Your task to perform on an android device: Open Wikipedia Image 0: 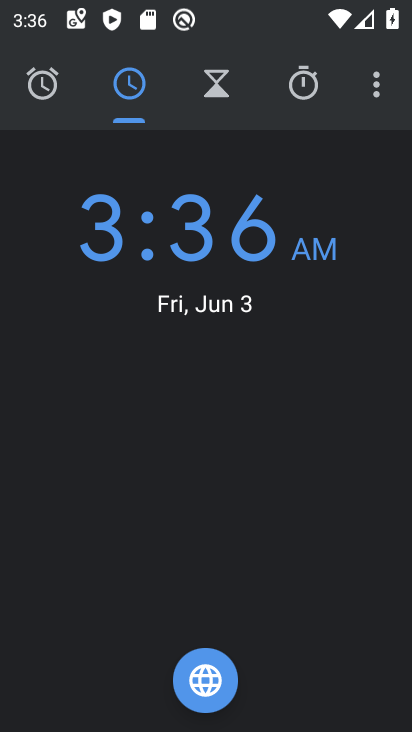
Step 0: press home button
Your task to perform on an android device: Open Wikipedia Image 1: 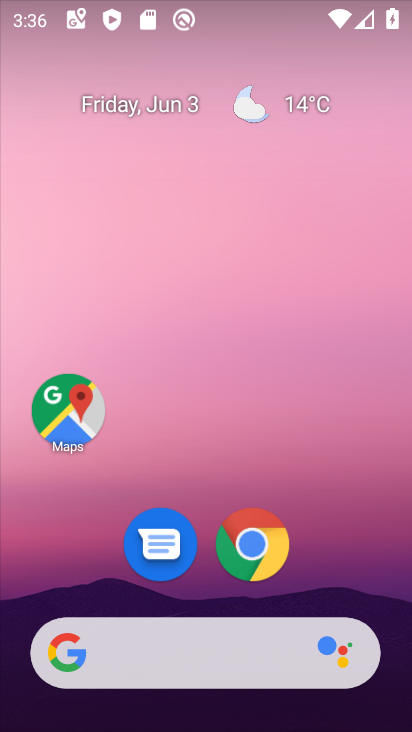
Step 1: click (246, 543)
Your task to perform on an android device: Open Wikipedia Image 2: 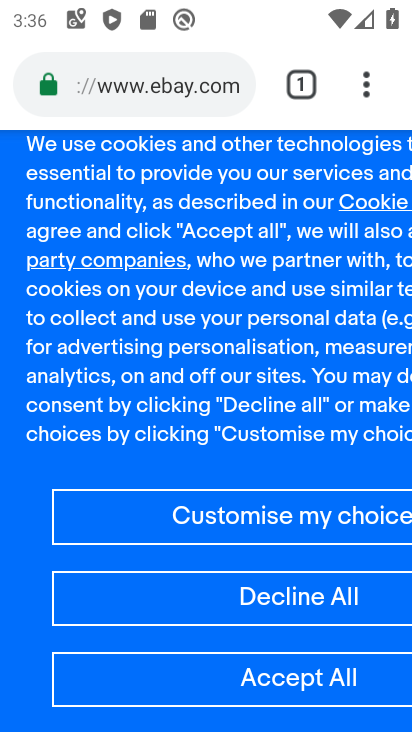
Step 2: click (227, 67)
Your task to perform on an android device: Open Wikipedia Image 3: 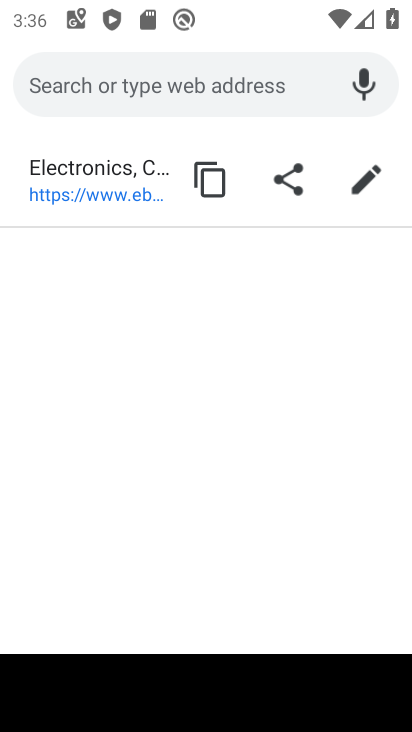
Step 3: type "wikipedia"
Your task to perform on an android device: Open Wikipedia Image 4: 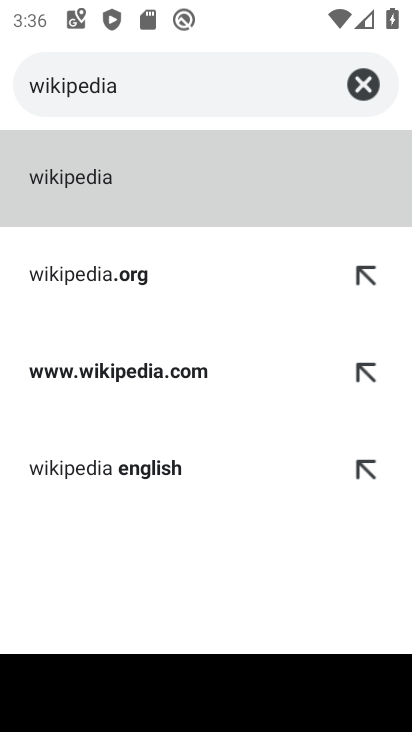
Step 4: click (103, 175)
Your task to perform on an android device: Open Wikipedia Image 5: 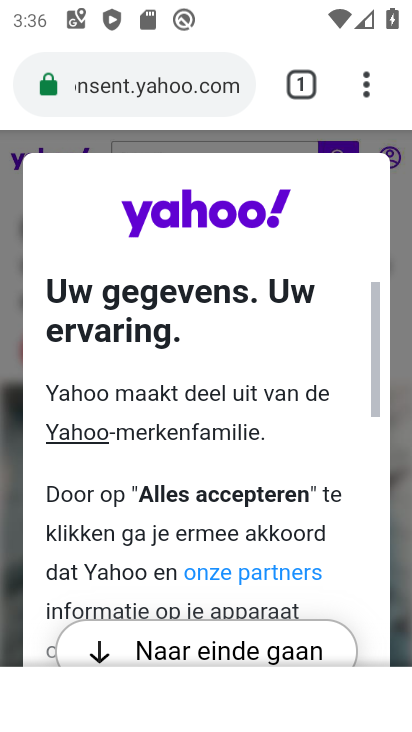
Step 5: drag from (214, 589) to (234, 104)
Your task to perform on an android device: Open Wikipedia Image 6: 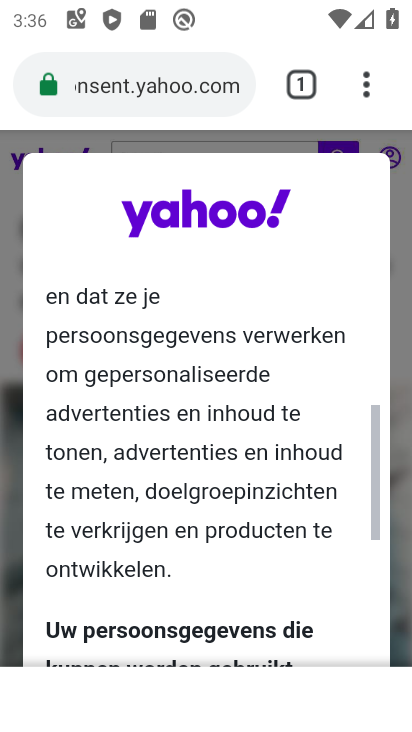
Step 6: drag from (289, 602) to (263, 50)
Your task to perform on an android device: Open Wikipedia Image 7: 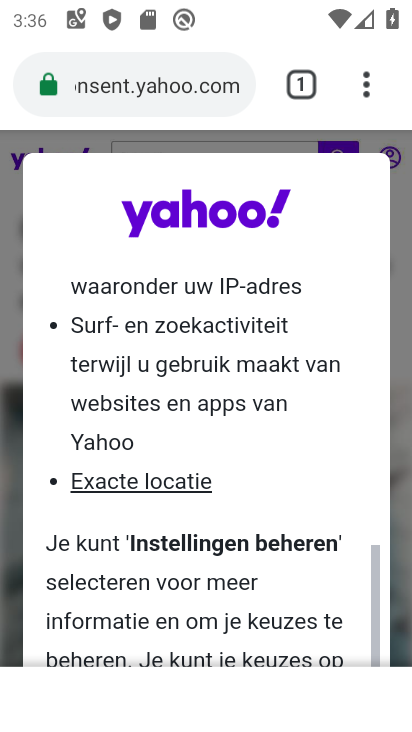
Step 7: drag from (289, 557) to (252, 188)
Your task to perform on an android device: Open Wikipedia Image 8: 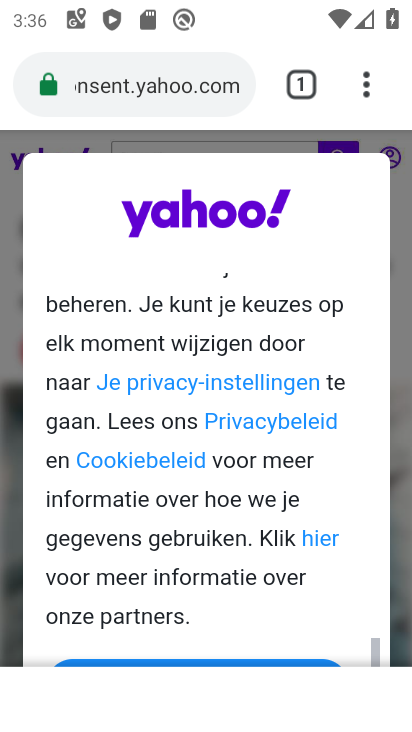
Step 8: drag from (270, 612) to (241, 254)
Your task to perform on an android device: Open Wikipedia Image 9: 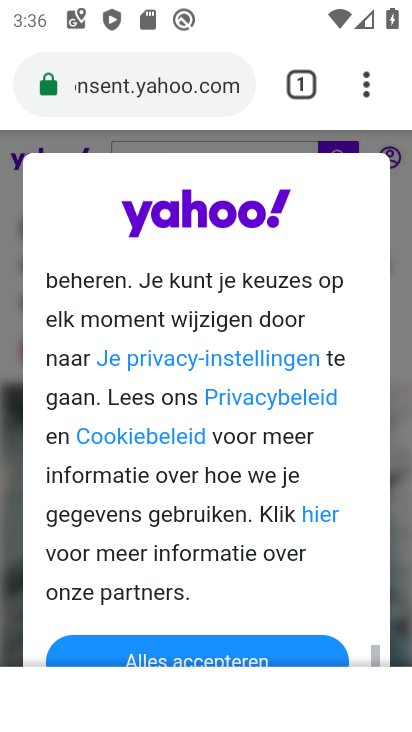
Step 9: click (189, 646)
Your task to perform on an android device: Open Wikipedia Image 10: 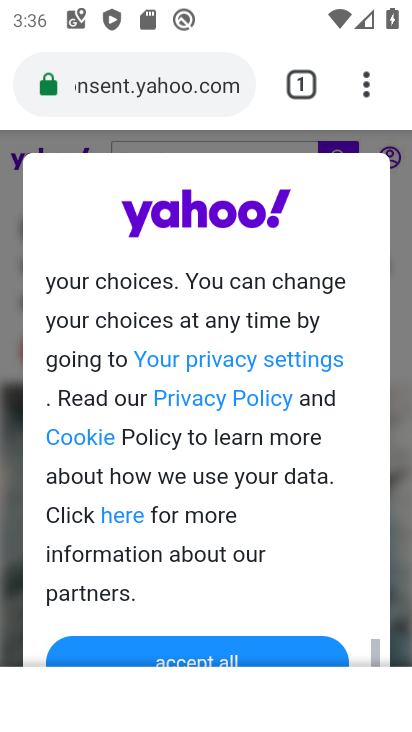
Step 10: click (189, 646)
Your task to perform on an android device: Open Wikipedia Image 11: 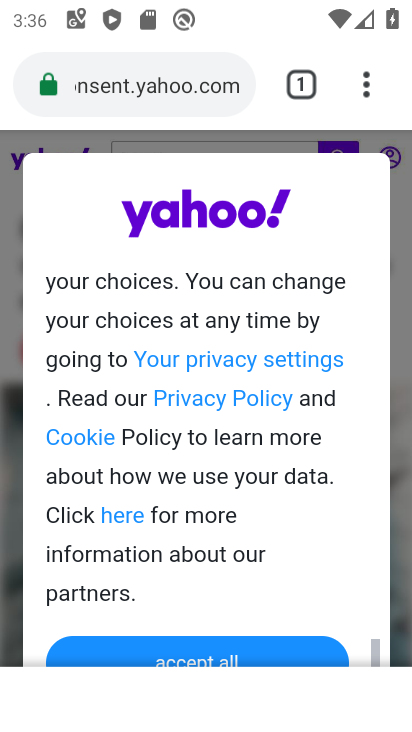
Step 11: click (189, 646)
Your task to perform on an android device: Open Wikipedia Image 12: 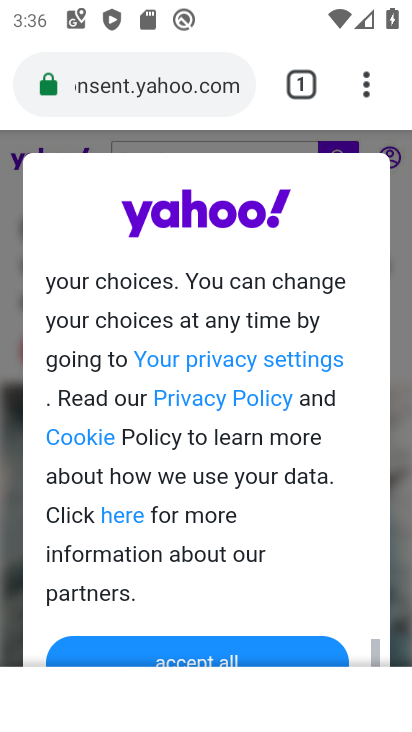
Step 12: click (230, 654)
Your task to perform on an android device: Open Wikipedia Image 13: 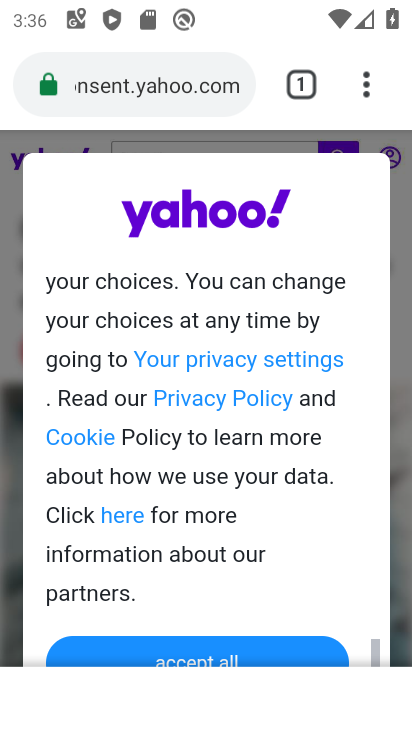
Step 13: click (219, 641)
Your task to perform on an android device: Open Wikipedia Image 14: 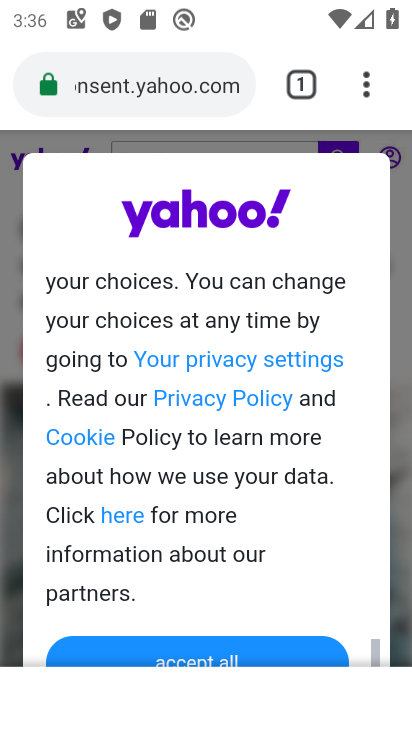
Step 14: click (204, 655)
Your task to perform on an android device: Open Wikipedia Image 15: 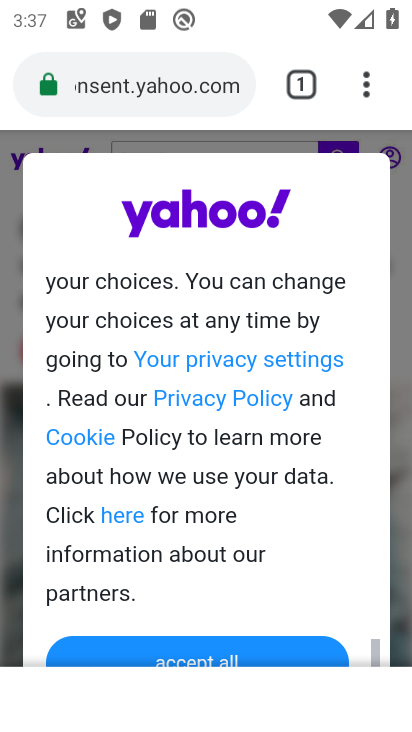
Step 15: task complete